Your task to perform on an android device: Open Chrome and go to settings Image 0: 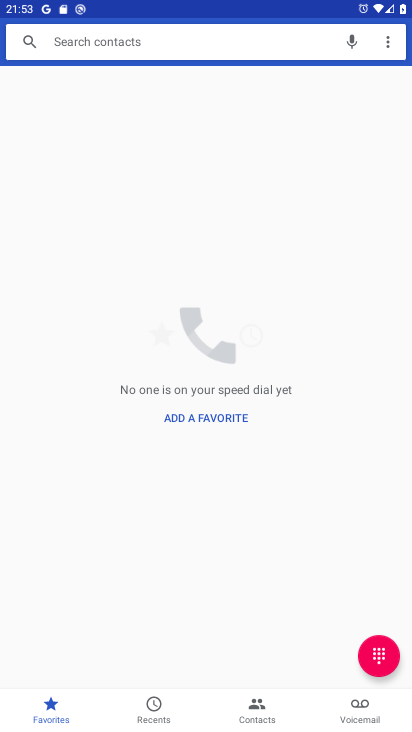
Step 0: press home button
Your task to perform on an android device: Open Chrome and go to settings Image 1: 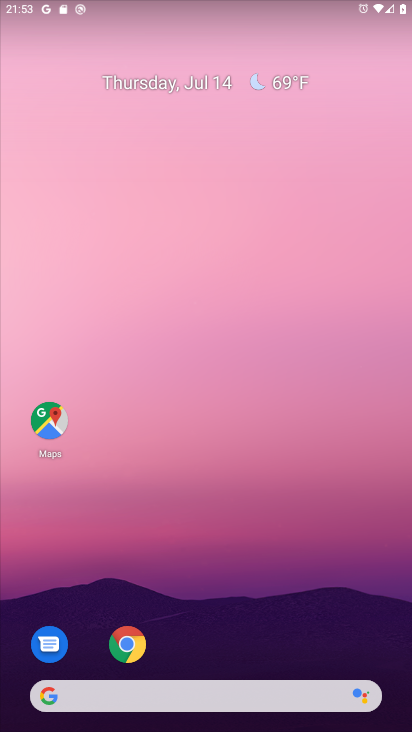
Step 1: click (125, 638)
Your task to perform on an android device: Open Chrome and go to settings Image 2: 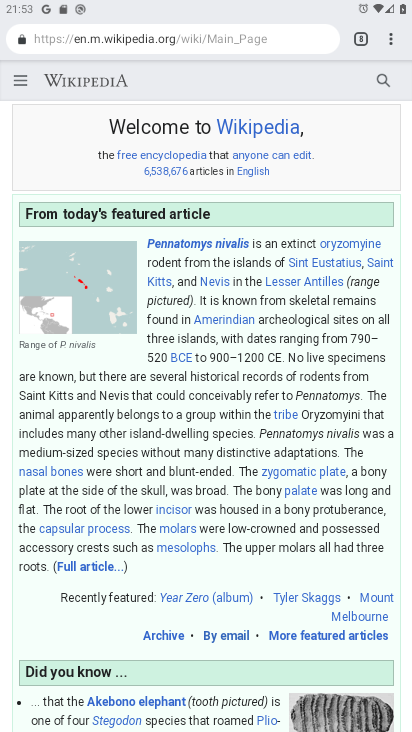
Step 2: press home button
Your task to perform on an android device: Open Chrome and go to settings Image 3: 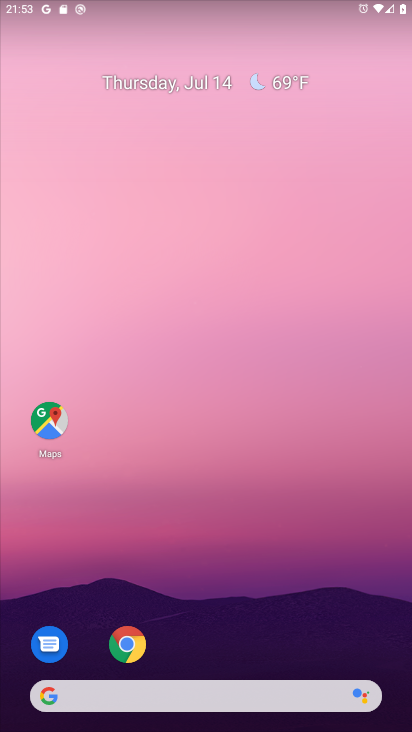
Step 3: click (125, 643)
Your task to perform on an android device: Open Chrome and go to settings Image 4: 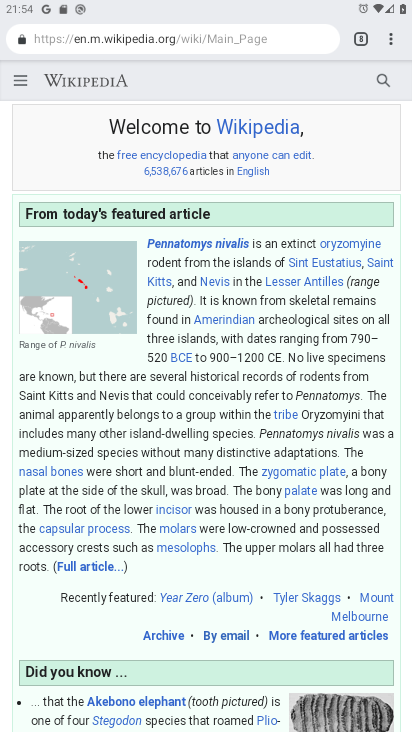
Step 4: click (395, 35)
Your task to perform on an android device: Open Chrome and go to settings Image 5: 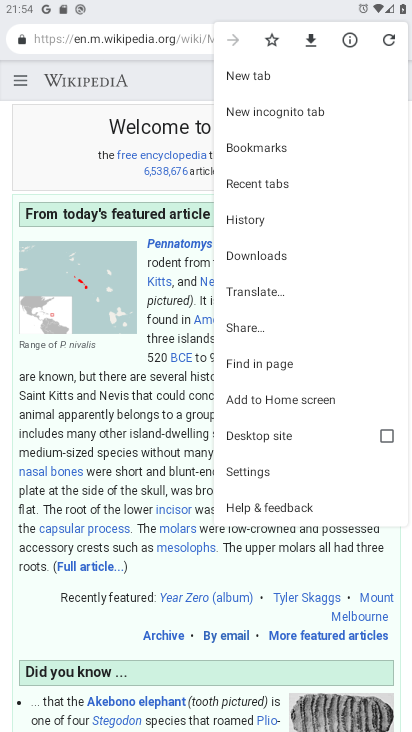
Step 5: click (276, 479)
Your task to perform on an android device: Open Chrome and go to settings Image 6: 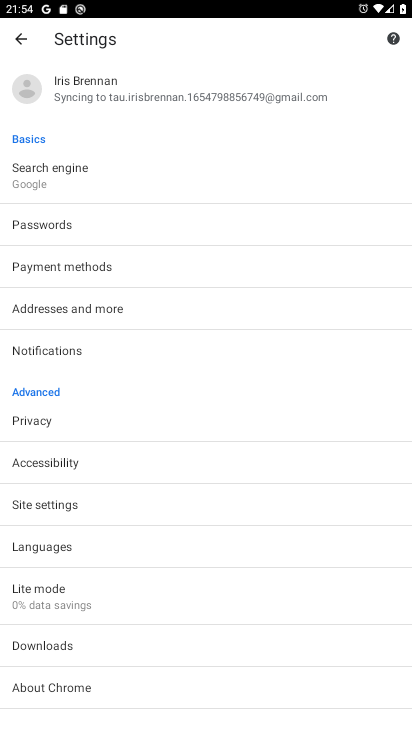
Step 6: task complete